Your task to perform on an android device: Open wifi settings Image 0: 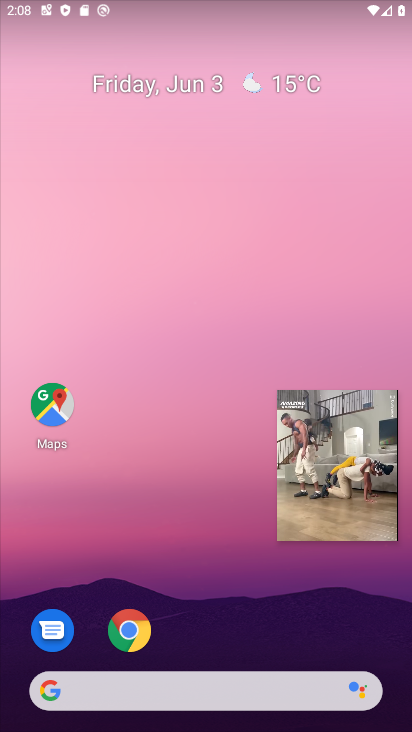
Step 0: click (380, 413)
Your task to perform on an android device: Open wifi settings Image 1: 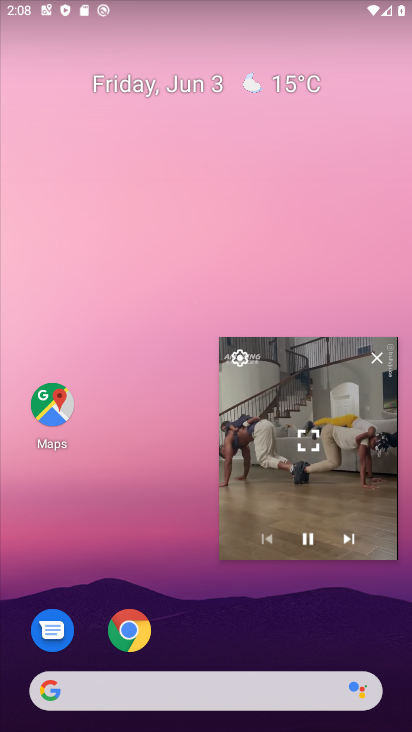
Step 1: click (379, 352)
Your task to perform on an android device: Open wifi settings Image 2: 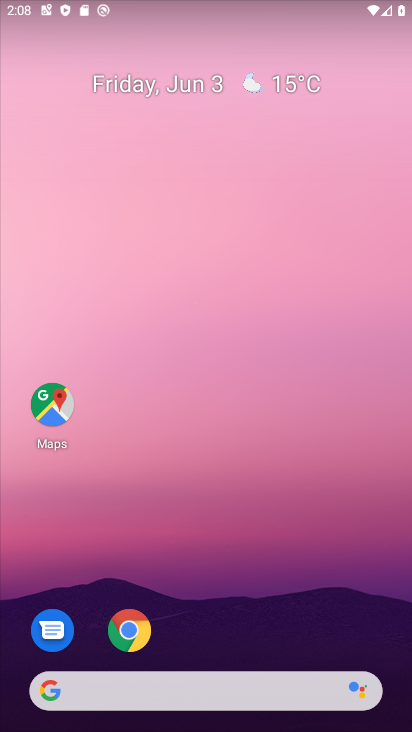
Step 2: drag from (283, 512) to (239, 0)
Your task to perform on an android device: Open wifi settings Image 3: 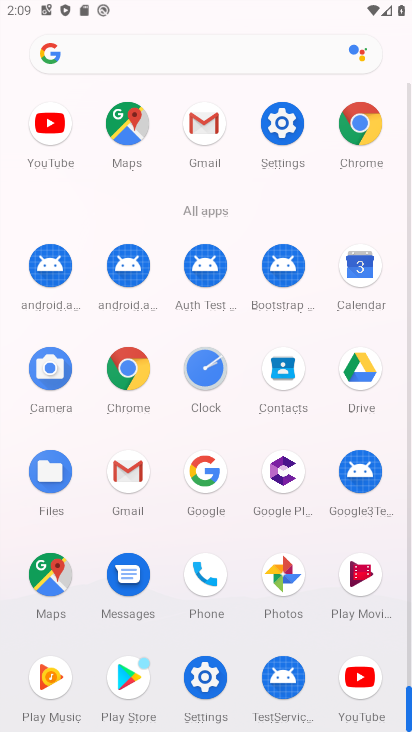
Step 3: click (283, 120)
Your task to perform on an android device: Open wifi settings Image 4: 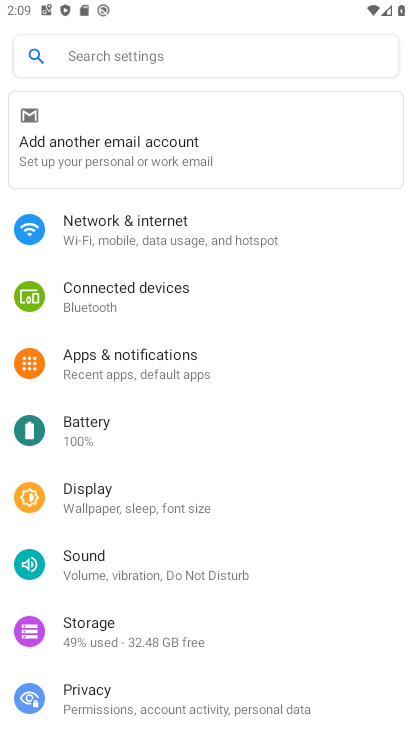
Step 4: click (162, 230)
Your task to perform on an android device: Open wifi settings Image 5: 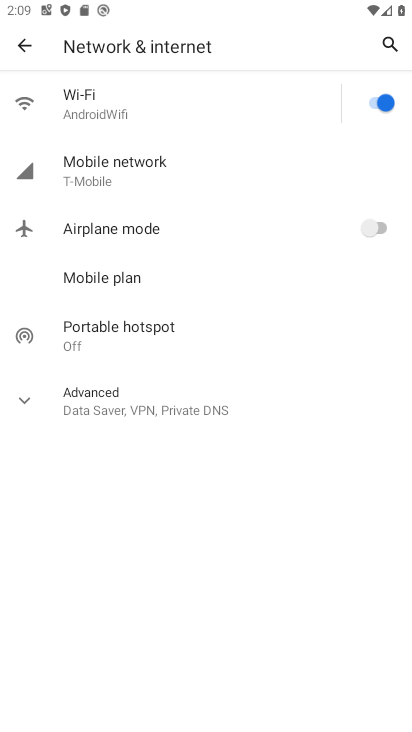
Step 5: click (102, 100)
Your task to perform on an android device: Open wifi settings Image 6: 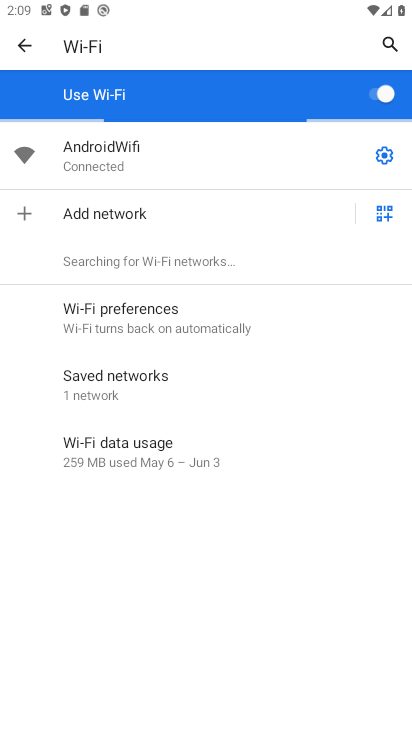
Step 6: task complete